Your task to perform on an android device: change notifications settings Image 0: 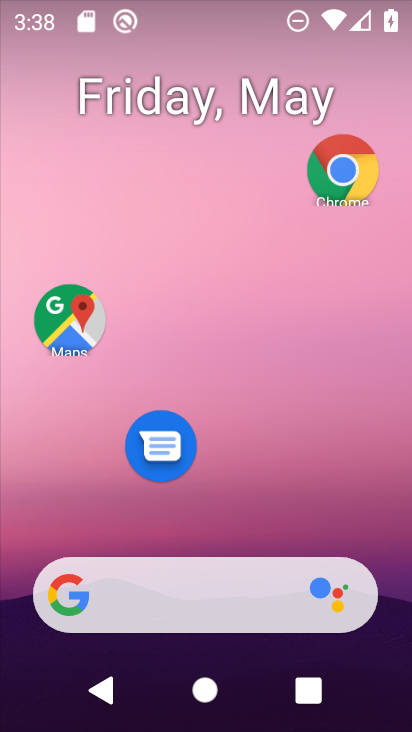
Step 0: drag from (240, 501) to (271, 131)
Your task to perform on an android device: change notifications settings Image 1: 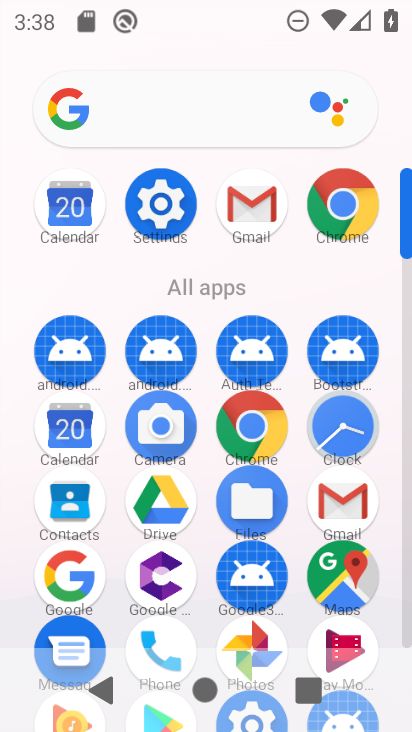
Step 1: click (158, 221)
Your task to perform on an android device: change notifications settings Image 2: 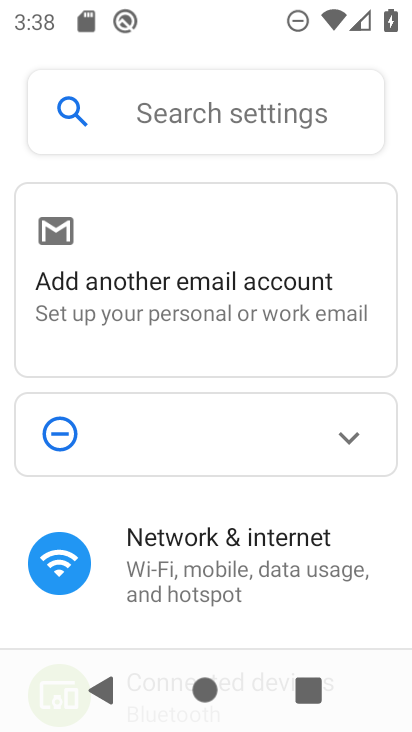
Step 2: drag from (106, 517) to (154, 71)
Your task to perform on an android device: change notifications settings Image 3: 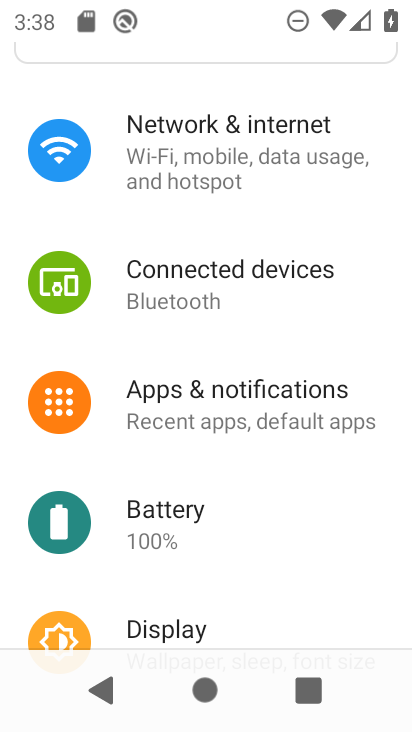
Step 3: click (225, 403)
Your task to perform on an android device: change notifications settings Image 4: 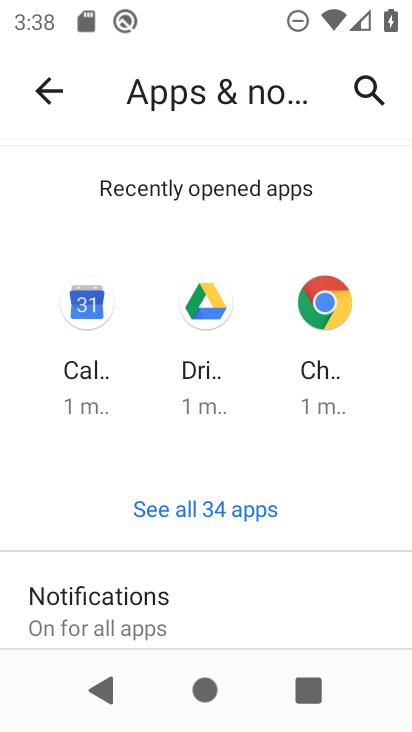
Step 4: click (100, 597)
Your task to perform on an android device: change notifications settings Image 5: 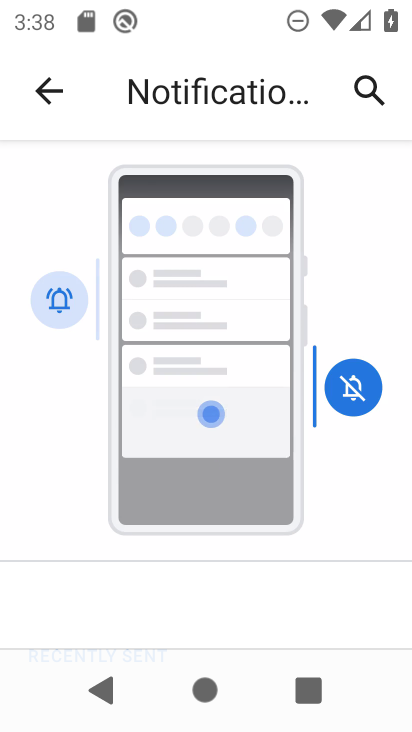
Step 5: task complete